Your task to perform on an android device: Open location settings Image 0: 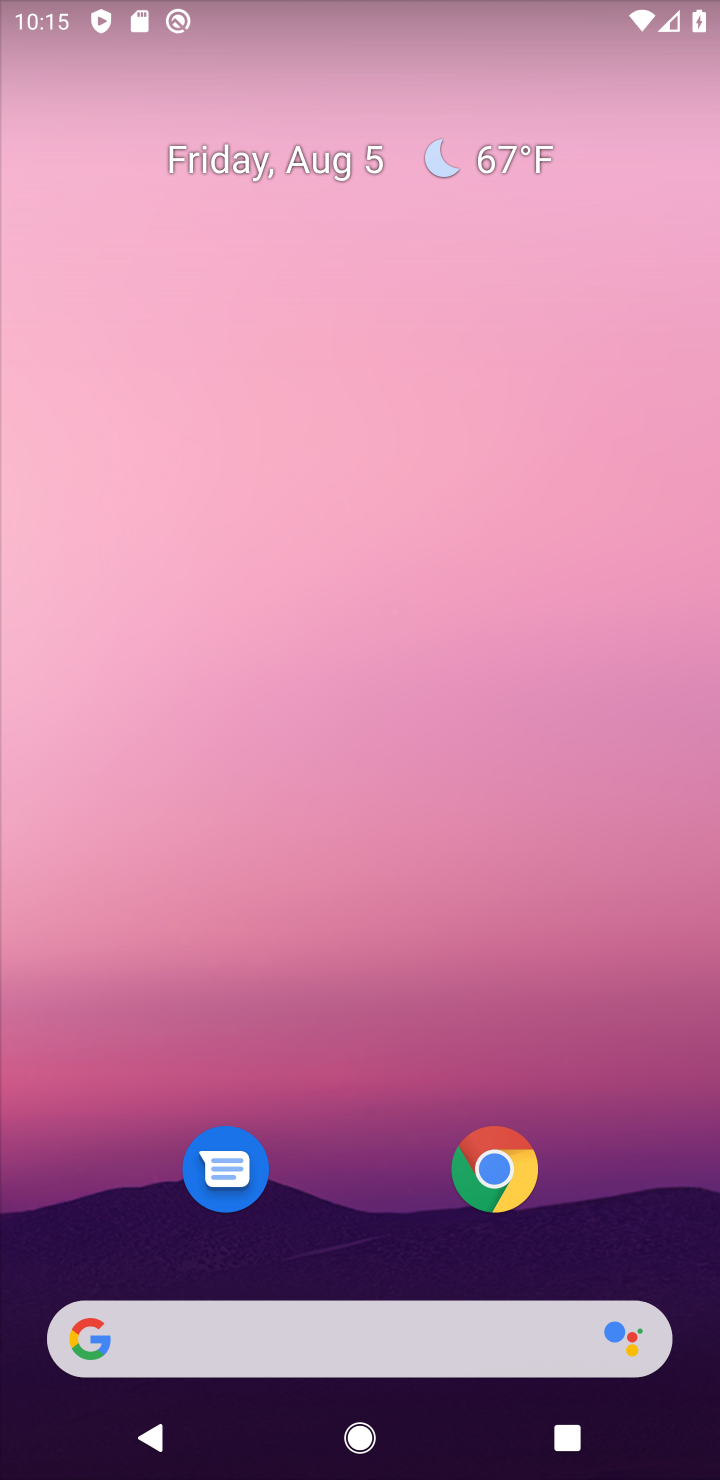
Step 0: drag from (636, 1046) to (561, 245)
Your task to perform on an android device: Open location settings Image 1: 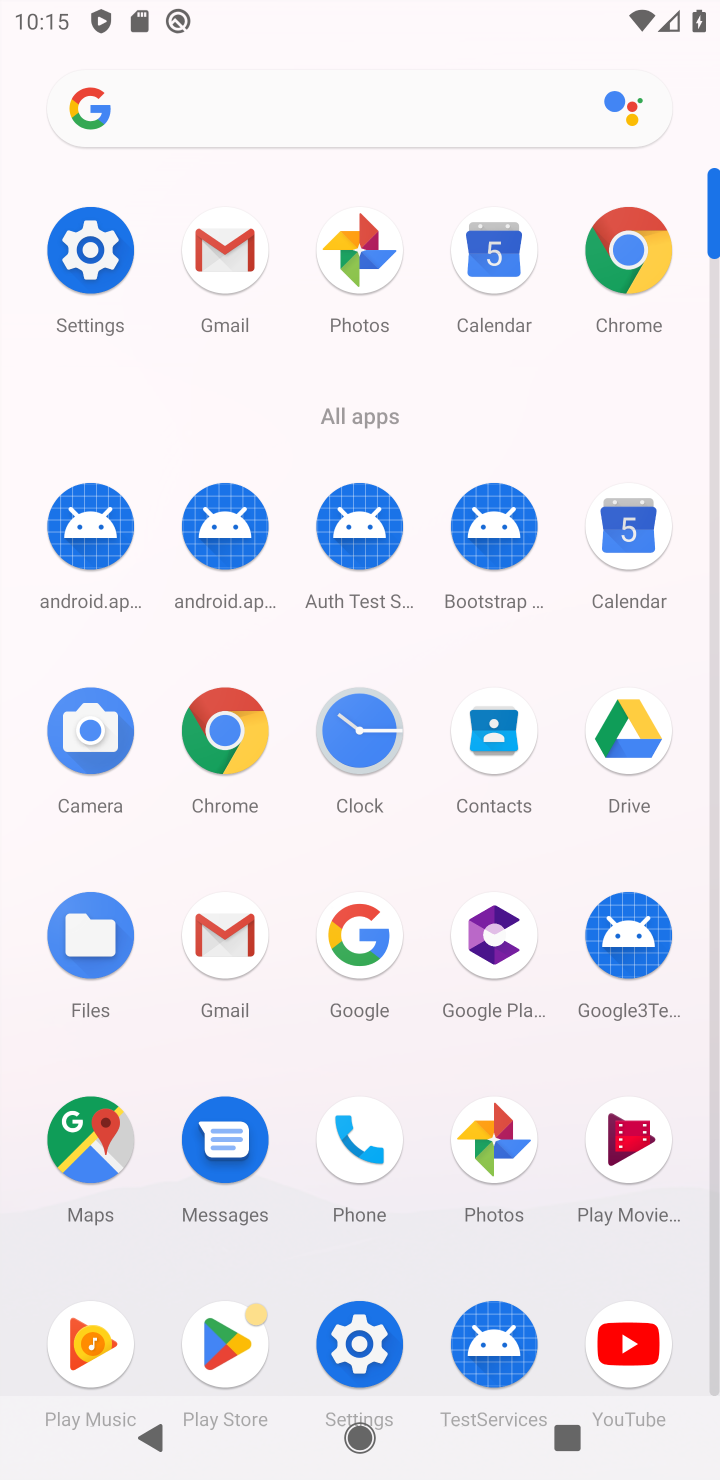
Step 1: click (358, 1354)
Your task to perform on an android device: Open location settings Image 2: 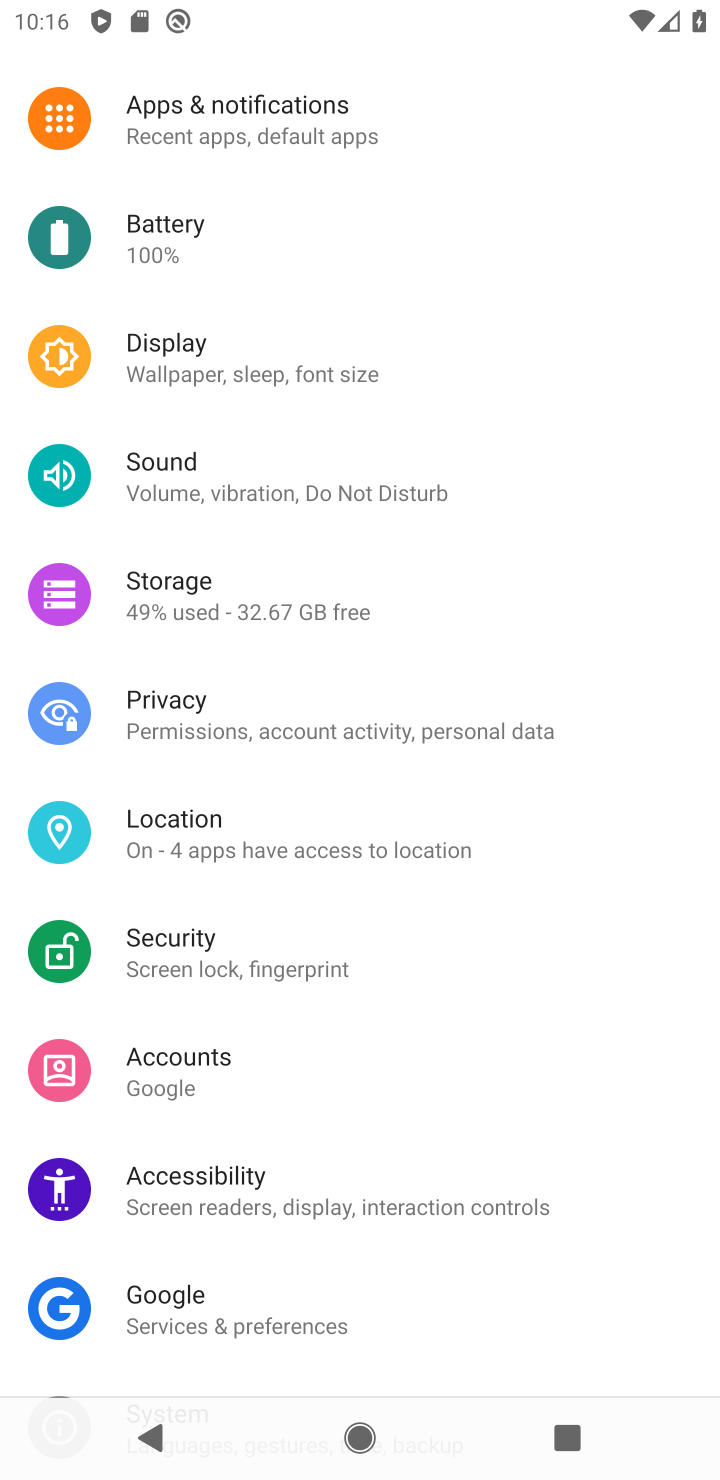
Step 2: click (190, 842)
Your task to perform on an android device: Open location settings Image 3: 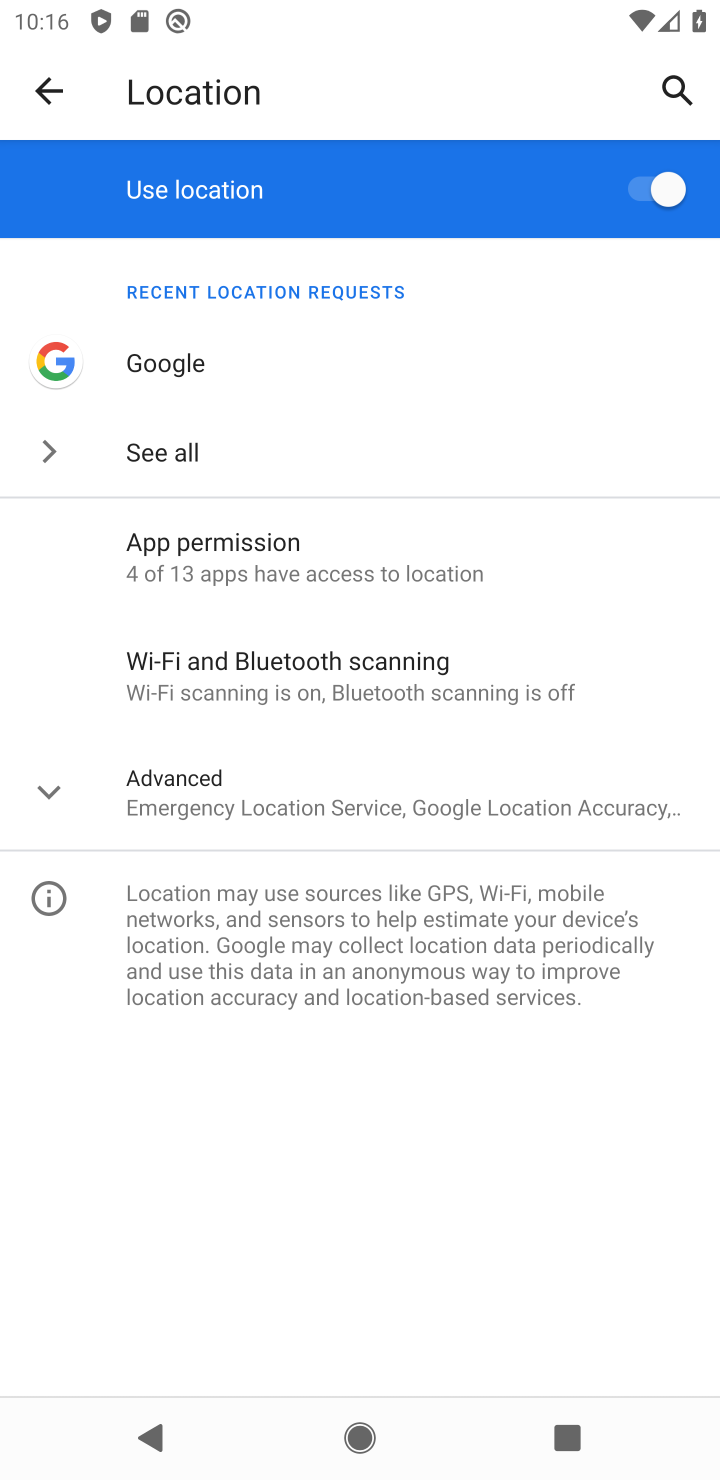
Step 3: task complete